Your task to perform on an android device: Go to ESPN.com Image 0: 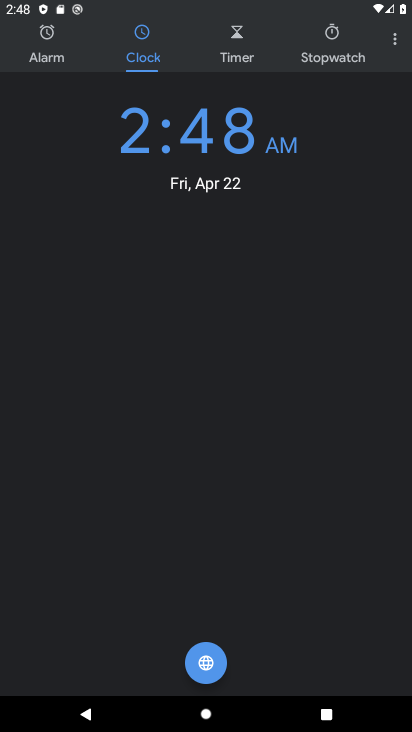
Step 0: press home button
Your task to perform on an android device: Go to ESPN.com Image 1: 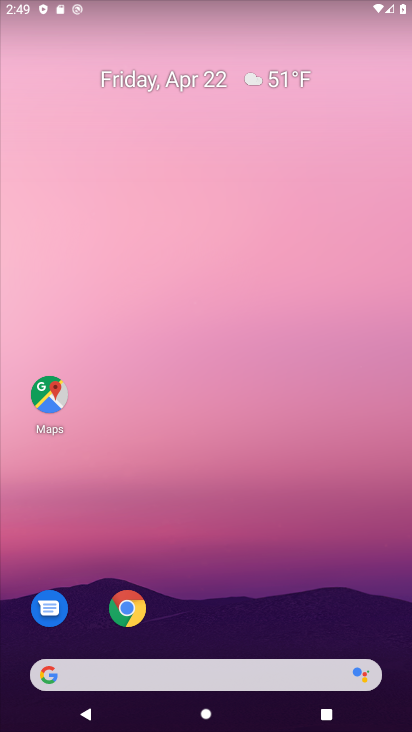
Step 1: click (197, 674)
Your task to perform on an android device: Go to ESPN.com Image 2: 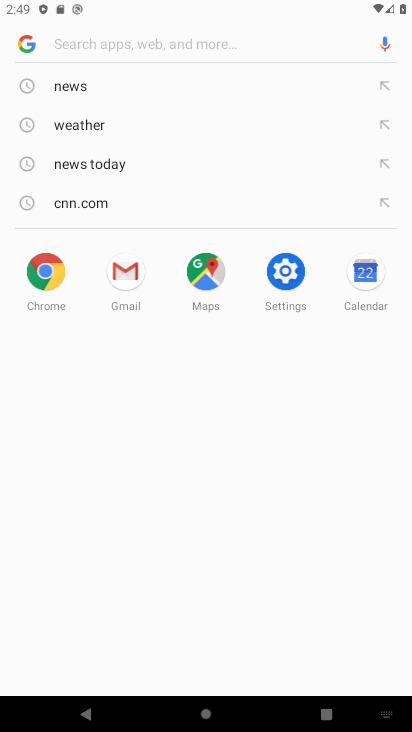
Step 2: type "ESPN.com"
Your task to perform on an android device: Go to ESPN.com Image 3: 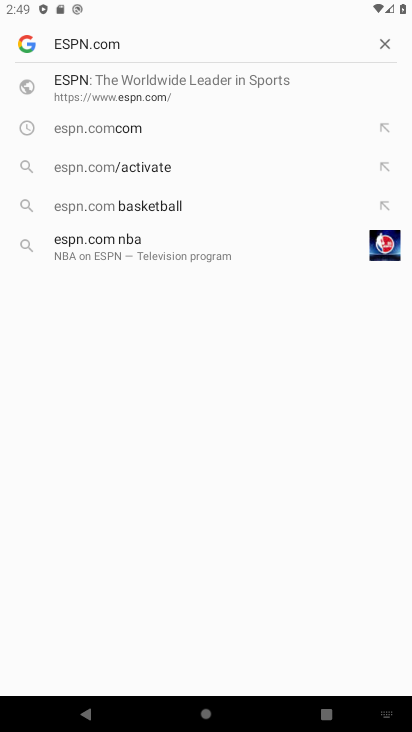
Step 3: click (157, 73)
Your task to perform on an android device: Go to ESPN.com Image 4: 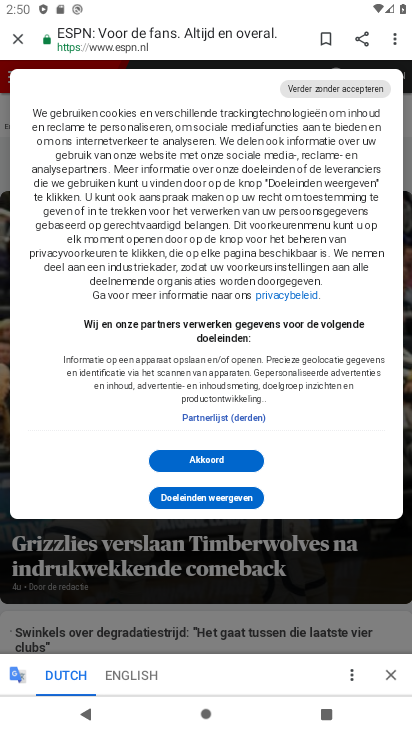
Step 4: task complete